Your task to perform on an android device: see sites visited before in the chrome app Image 0: 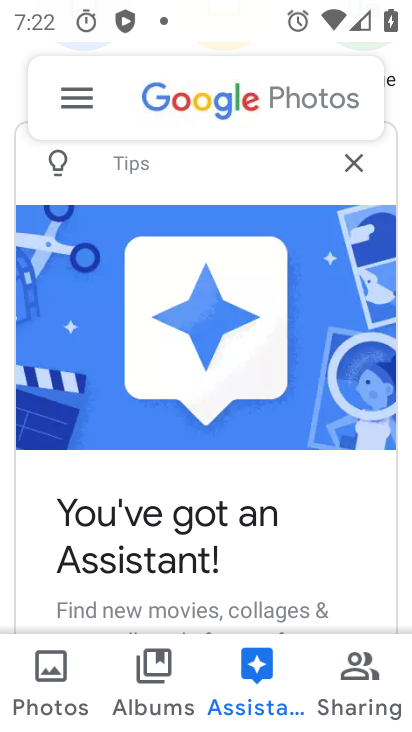
Step 0: press home button
Your task to perform on an android device: see sites visited before in the chrome app Image 1: 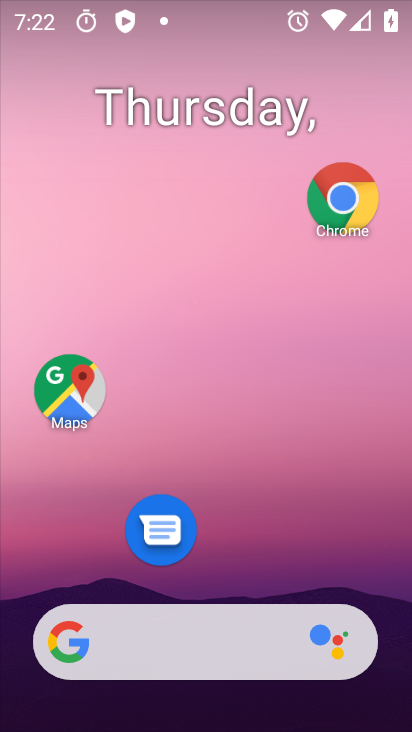
Step 1: drag from (267, 571) to (147, 142)
Your task to perform on an android device: see sites visited before in the chrome app Image 2: 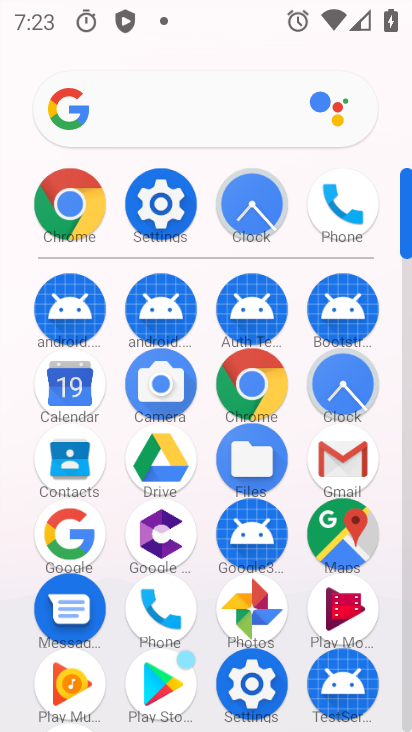
Step 2: click (65, 199)
Your task to perform on an android device: see sites visited before in the chrome app Image 3: 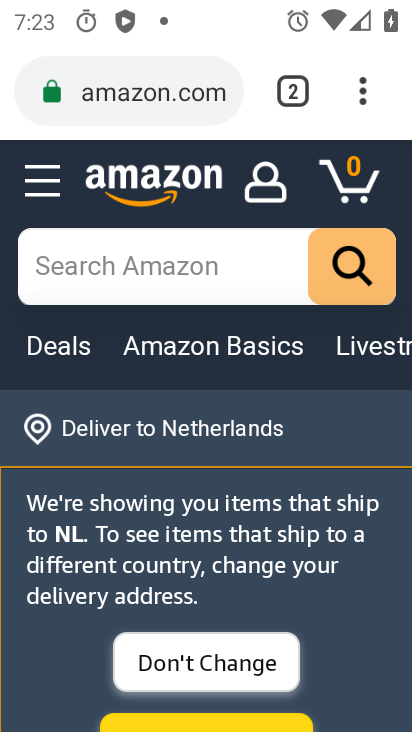
Step 3: press home button
Your task to perform on an android device: see sites visited before in the chrome app Image 4: 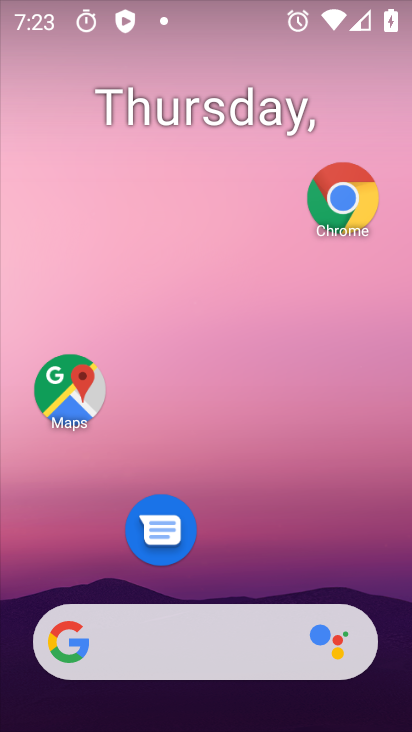
Step 4: drag from (287, 691) to (296, 461)
Your task to perform on an android device: see sites visited before in the chrome app Image 5: 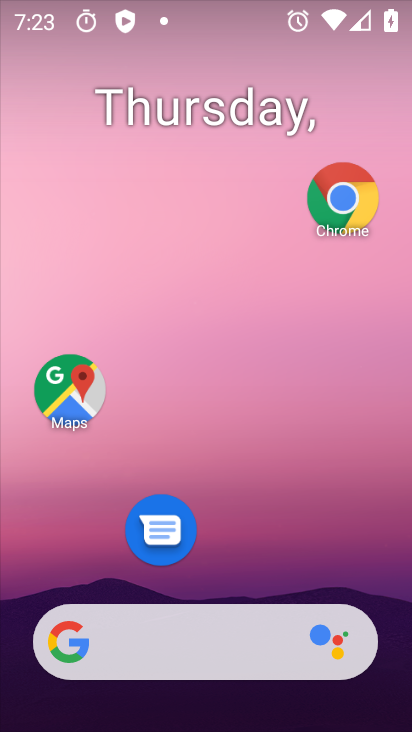
Step 5: drag from (294, 696) to (221, 342)
Your task to perform on an android device: see sites visited before in the chrome app Image 6: 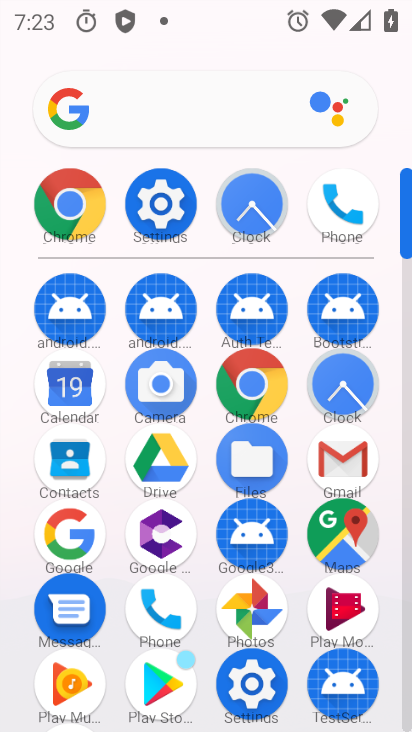
Step 6: click (49, 207)
Your task to perform on an android device: see sites visited before in the chrome app Image 7: 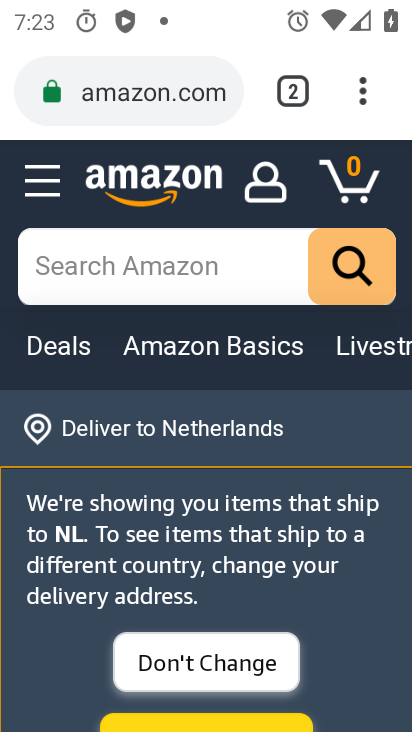
Step 7: click (352, 113)
Your task to perform on an android device: see sites visited before in the chrome app Image 8: 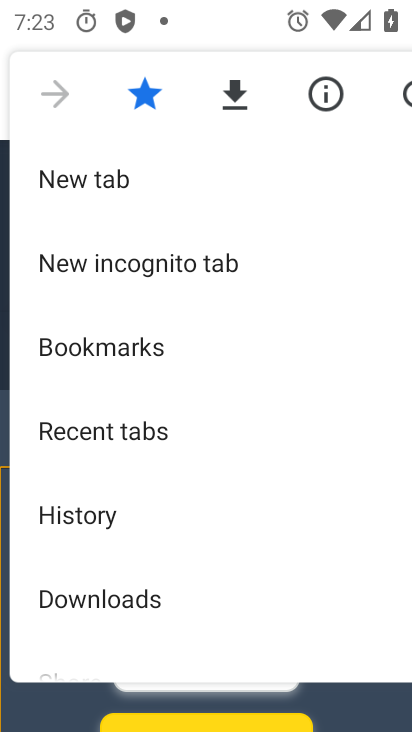
Step 8: drag from (212, 536) to (216, 317)
Your task to perform on an android device: see sites visited before in the chrome app Image 9: 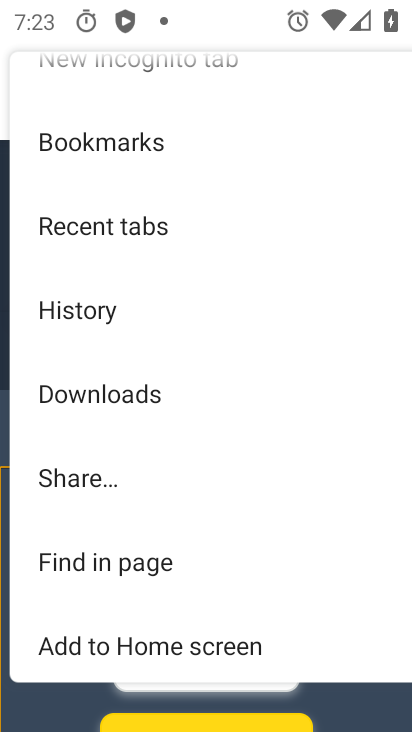
Step 9: drag from (176, 475) to (161, 338)
Your task to perform on an android device: see sites visited before in the chrome app Image 10: 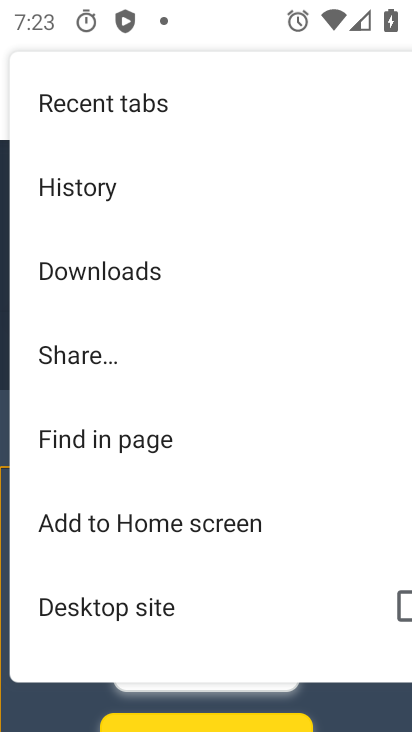
Step 10: drag from (162, 582) to (125, 345)
Your task to perform on an android device: see sites visited before in the chrome app Image 11: 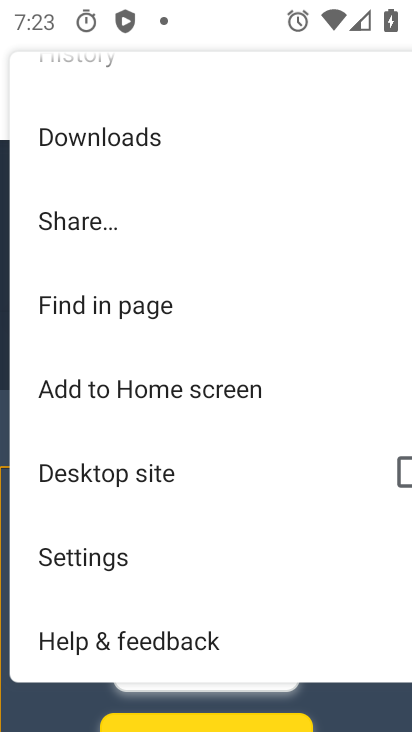
Step 11: click (154, 574)
Your task to perform on an android device: see sites visited before in the chrome app Image 12: 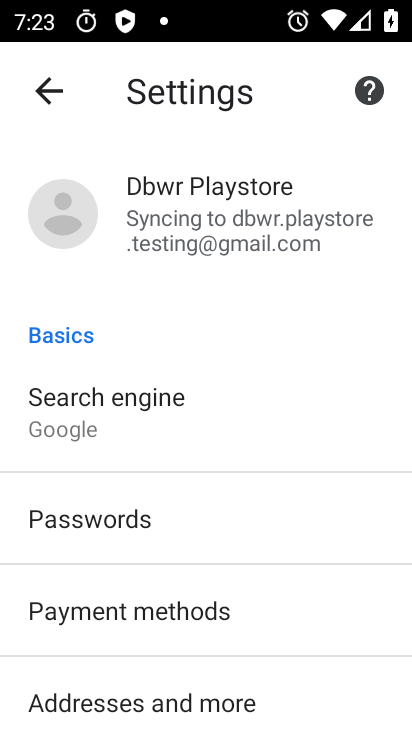
Step 12: drag from (165, 589) to (168, 311)
Your task to perform on an android device: see sites visited before in the chrome app Image 13: 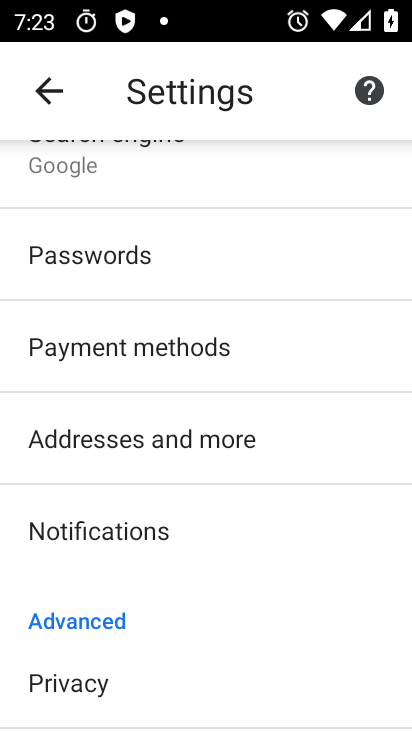
Step 13: drag from (200, 616) to (187, 404)
Your task to perform on an android device: see sites visited before in the chrome app Image 14: 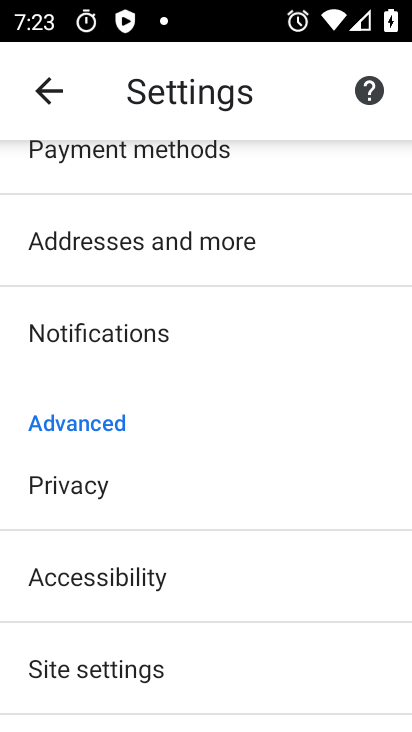
Step 14: click (128, 674)
Your task to perform on an android device: see sites visited before in the chrome app Image 15: 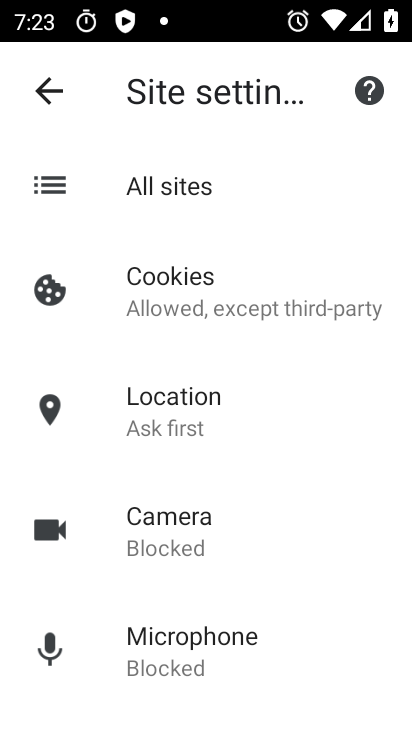
Step 15: click (139, 193)
Your task to perform on an android device: see sites visited before in the chrome app Image 16: 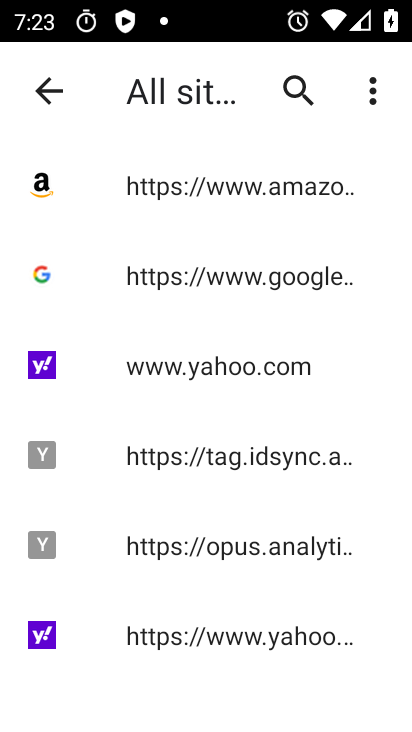
Step 16: task complete